Your task to perform on an android device: move a message to another label in the gmail app Image 0: 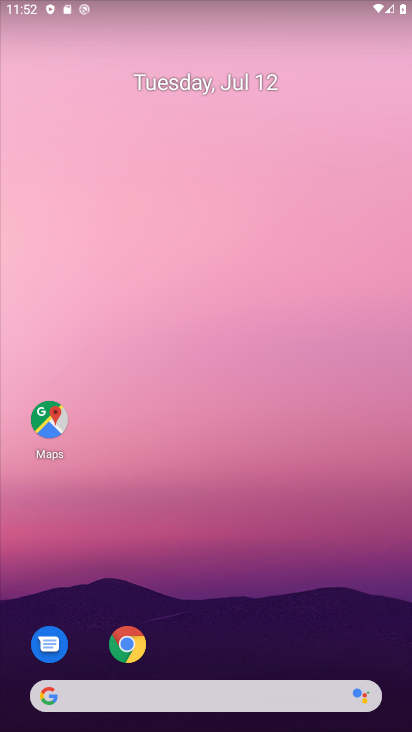
Step 0: drag from (206, 621) to (232, 150)
Your task to perform on an android device: move a message to another label in the gmail app Image 1: 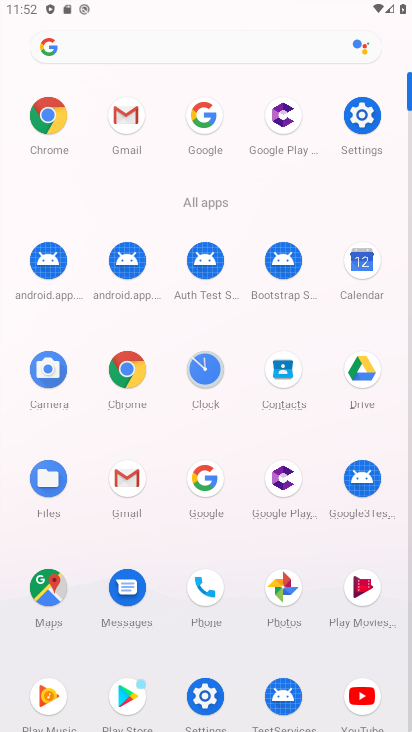
Step 1: click (122, 118)
Your task to perform on an android device: move a message to another label in the gmail app Image 2: 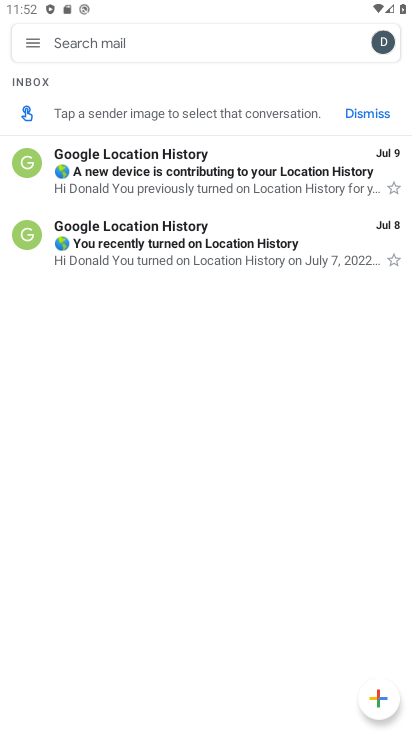
Step 2: click (211, 171)
Your task to perform on an android device: move a message to another label in the gmail app Image 3: 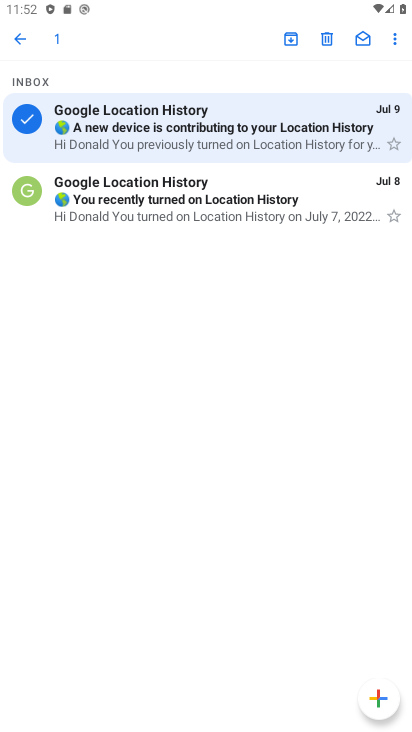
Step 3: click (391, 37)
Your task to perform on an android device: move a message to another label in the gmail app Image 4: 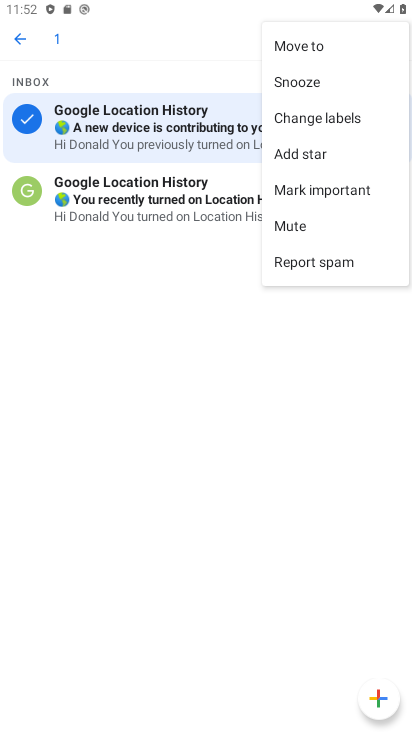
Step 4: click (325, 121)
Your task to perform on an android device: move a message to another label in the gmail app Image 5: 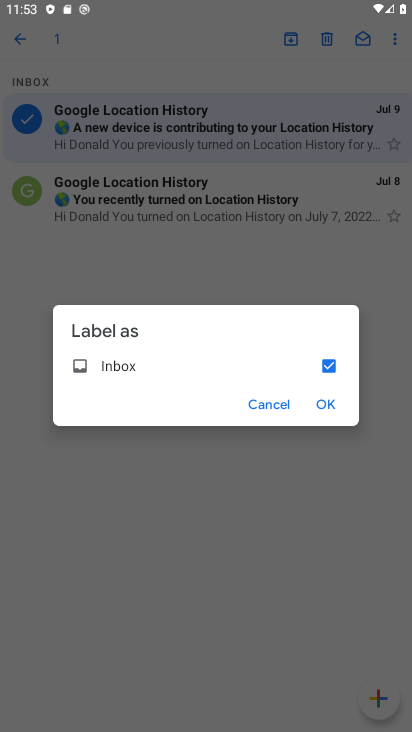
Step 5: click (329, 367)
Your task to perform on an android device: move a message to another label in the gmail app Image 6: 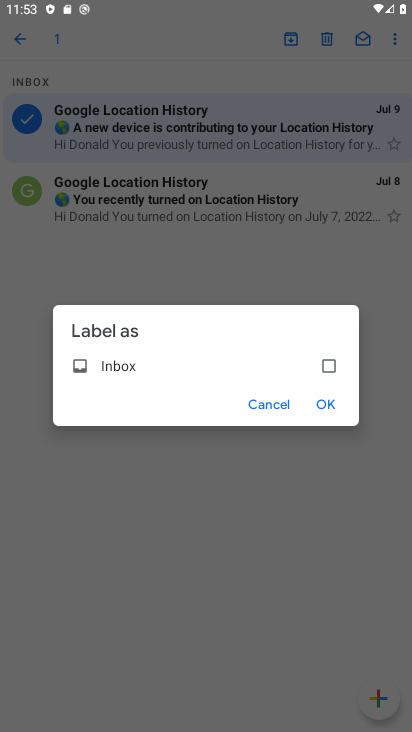
Step 6: click (322, 404)
Your task to perform on an android device: move a message to another label in the gmail app Image 7: 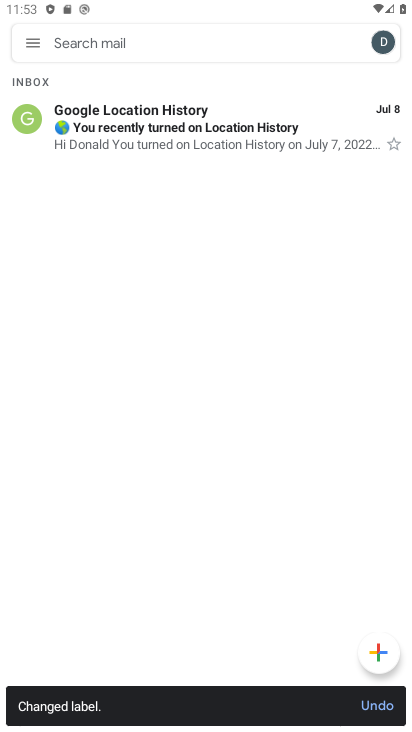
Step 7: task complete